Your task to perform on an android device: move an email to a new category in the gmail app Image 0: 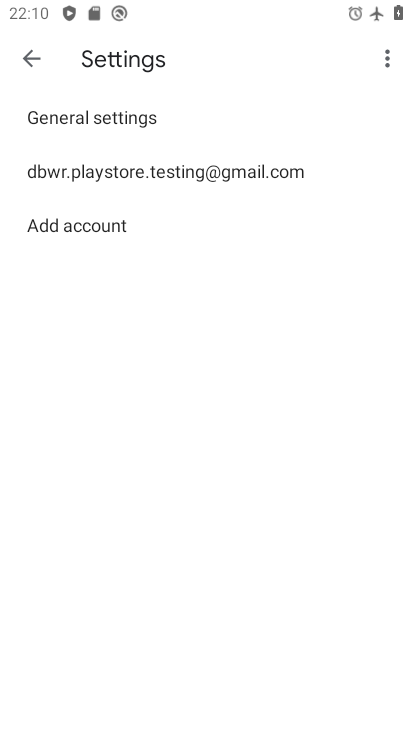
Step 0: press home button
Your task to perform on an android device: move an email to a new category in the gmail app Image 1: 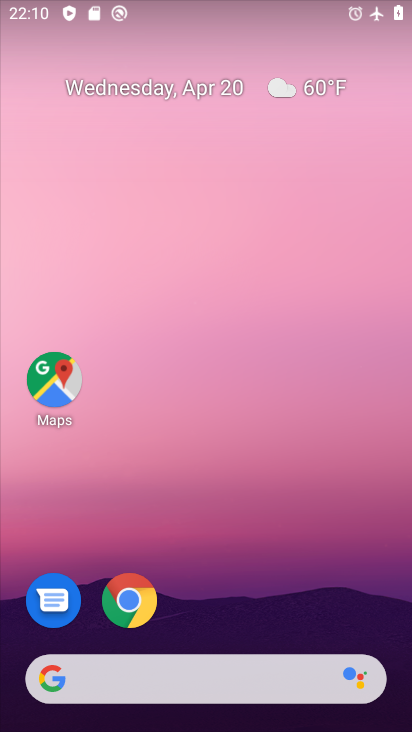
Step 1: drag from (198, 635) to (187, 53)
Your task to perform on an android device: move an email to a new category in the gmail app Image 2: 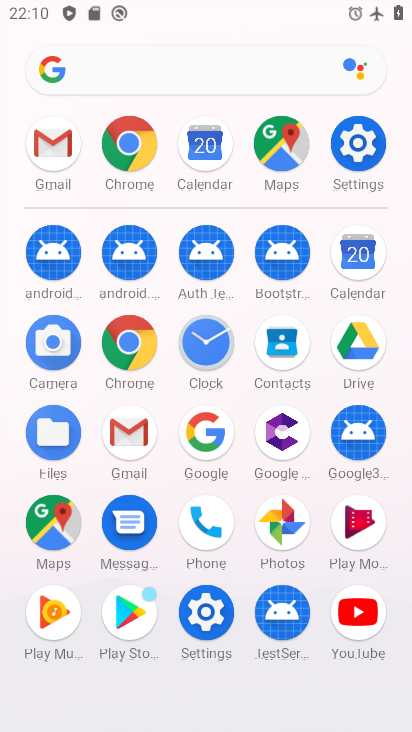
Step 2: click (124, 420)
Your task to perform on an android device: move an email to a new category in the gmail app Image 3: 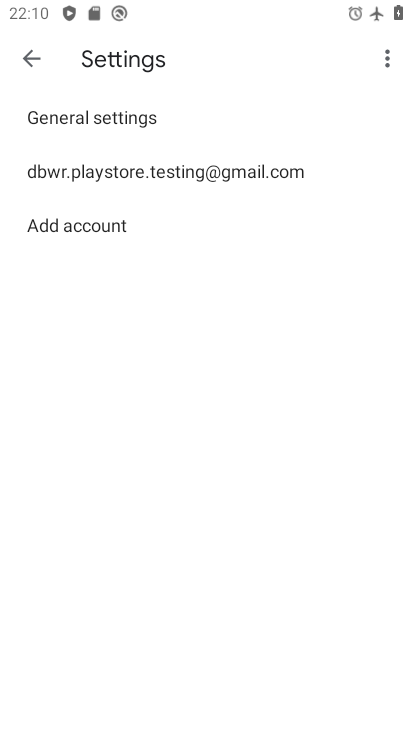
Step 3: click (14, 71)
Your task to perform on an android device: move an email to a new category in the gmail app Image 4: 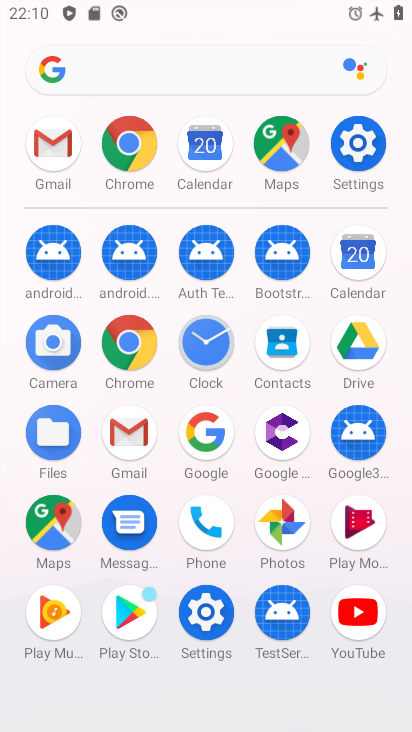
Step 4: click (126, 438)
Your task to perform on an android device: move an email to a new category in the gmail app Image 5: 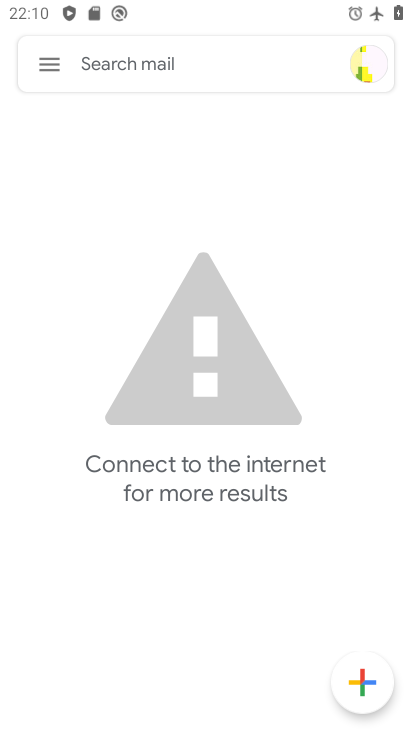
Step 5: task complete